Your task to perform on an android device: Open the Play Movies app and select the watchlist tab. Image 0: 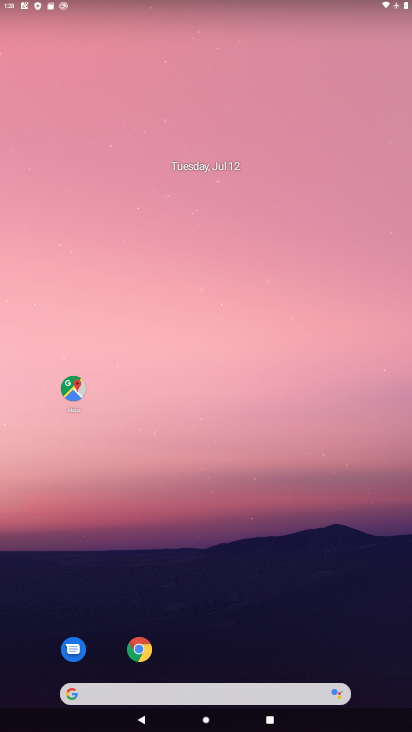
Step 0: drag from (261, 641) to (232, 97)
Your task to perform on an android device: Open the Play Movies app and select the watchlist tab. Image 1: 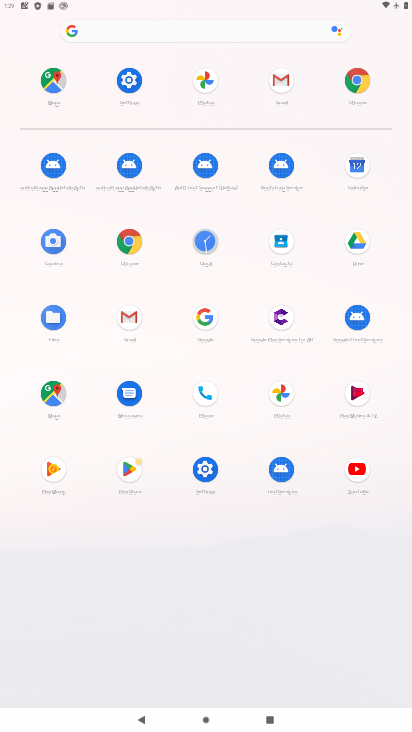
Step 1: click (341, 392)
Your task to perform on an android device: Open the Play Movies app and select the watchlist tab. Image 2: 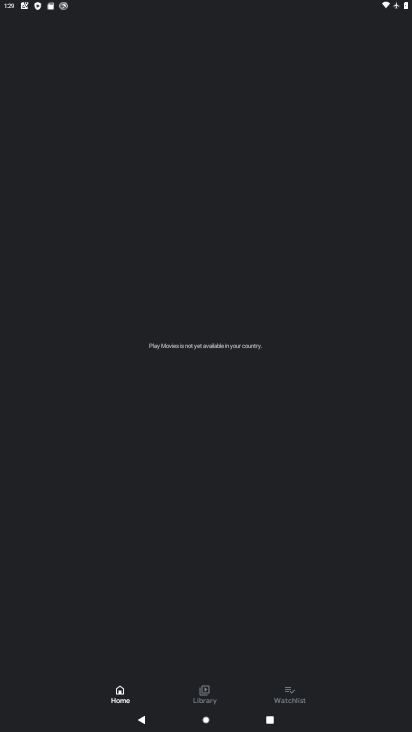
Step 2: click (284, 683)
Your task to perform on an android device: Open the Play Movies app and select the watchlist tab. Image 3: 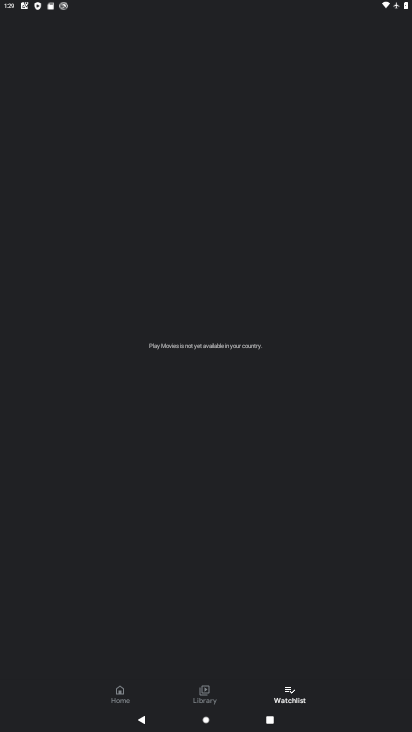
Step 3: task complete